Your task to perform on an android device: empty trash in google photos Image 0: 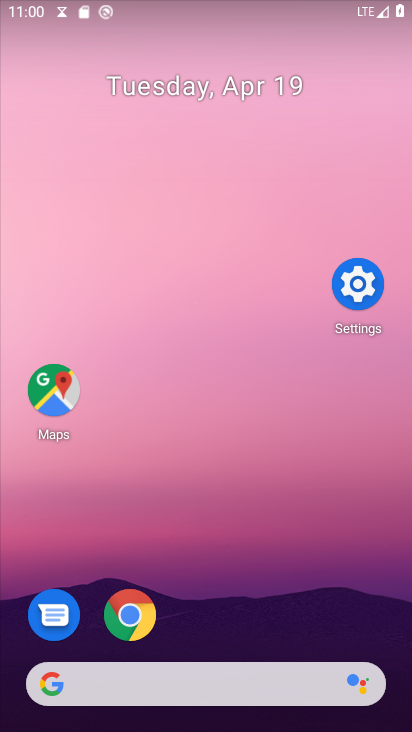
Step 0: drag from (181, 522) to (236, 134)
Your task to perform on an android device: empty trash in google photos Image 1: 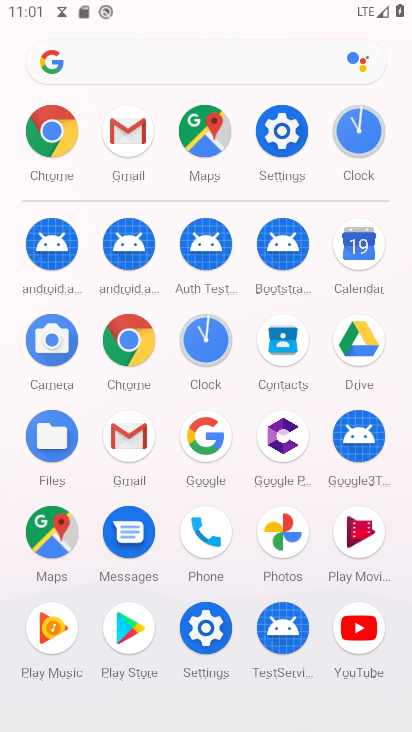
Step 1: click (300, 527)
Your task to perform on an android device: empty trash in google photos Image 2: 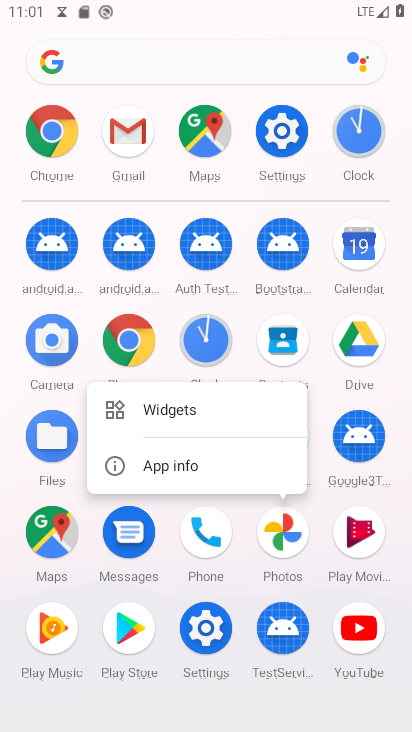
Step 2: click (190, 472)
Your task to perform on an android device: empty trash in google photos Image 3: 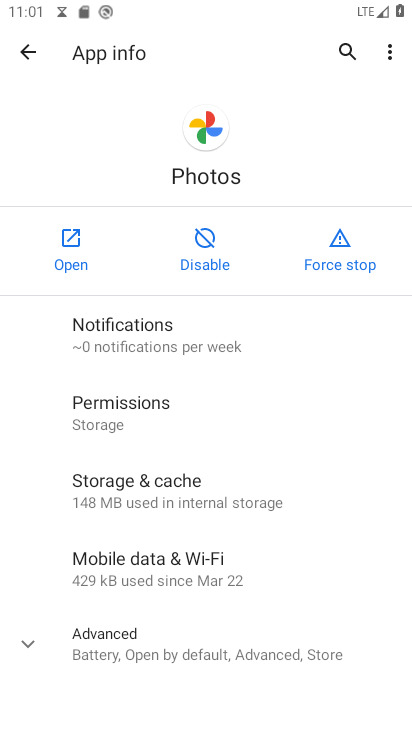
Step 3: click (70, 240)
Your task to perform on an android device: empty trash in google photos Image 4: 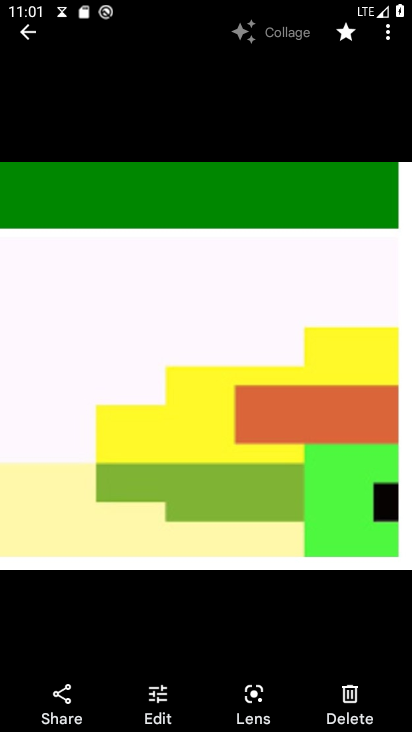
Step 4: click (27, 38)
Your task to perform on an android device: empty trash in google photos Image 5: 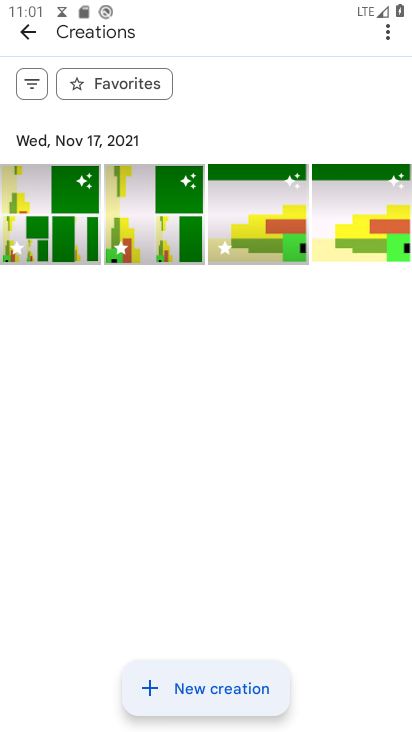
Step 5: click (34, 32)
Your task to perform on an android device: empty trash in google photos Image 6: 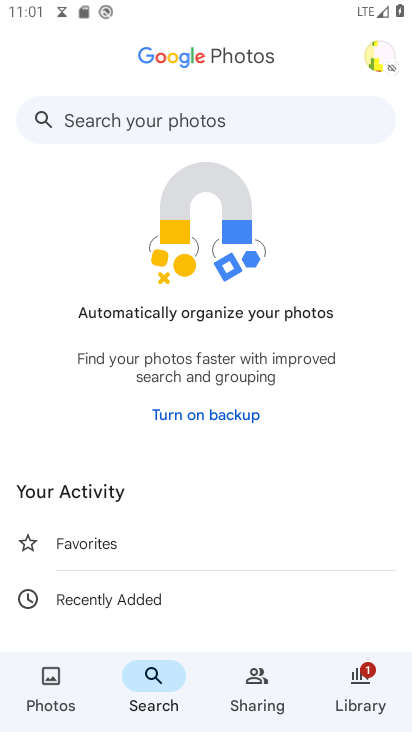
Step 6: drag from (229, 472) to (307, 173)
Your task to perform on an android device: empty trash in google photos Image 7: 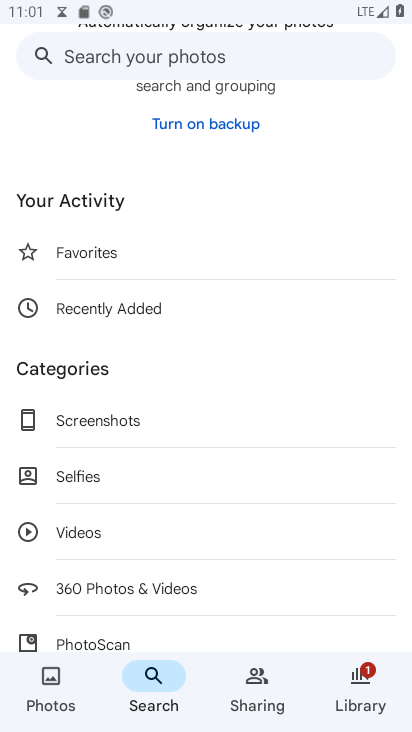
Step 7: drag from (151, 563) to (293, 184)
Your task to perform on an android device: empty trash in google photos Image 8: 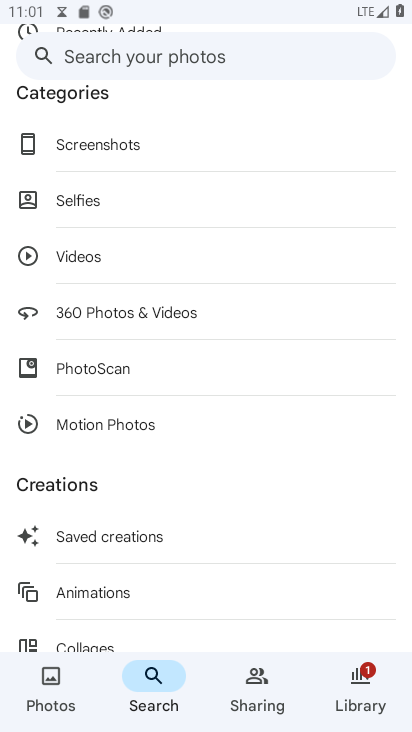
Step 8: click (347, 667)
Your task to perform on an android device: empty trash in google photos Image 9: 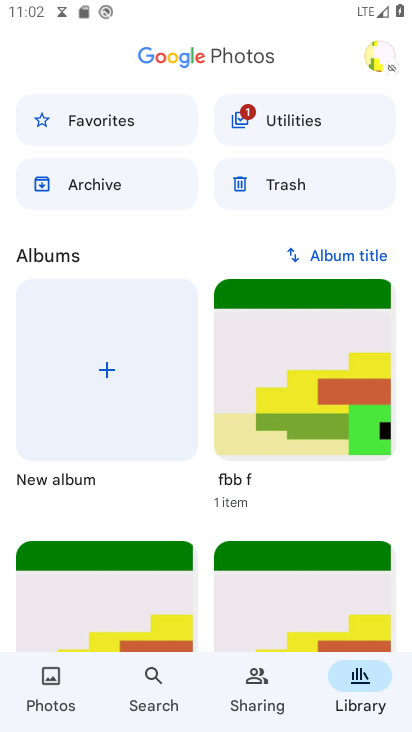
Step 9: click (299, 201)
Your task to perform on an android device: empty trash in google photos Image 10: 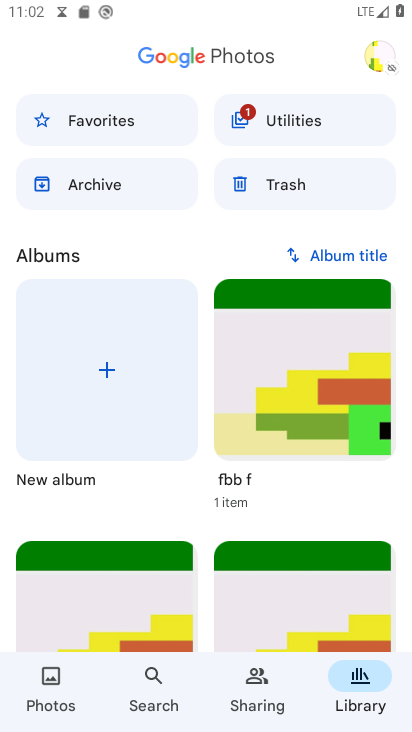
Step 10: click (304, 176)
Your task to perform on an android device: empty trash in google photos Image 11: 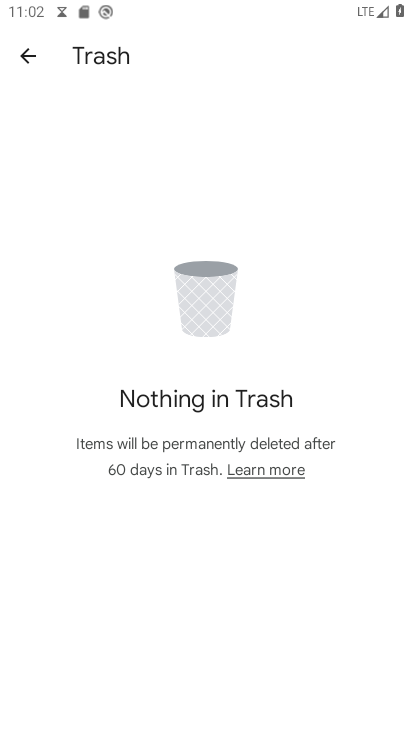
Step 11: task complete